Your task to perform on an android device: choose inbox layout in the gmail app Image 0: 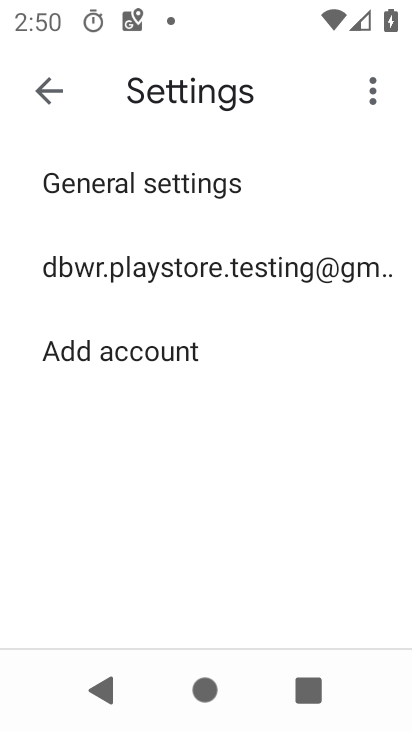
Step 0: press back button
Your task to perform on an android device: choose inbox layout in the gmail app Image 1: 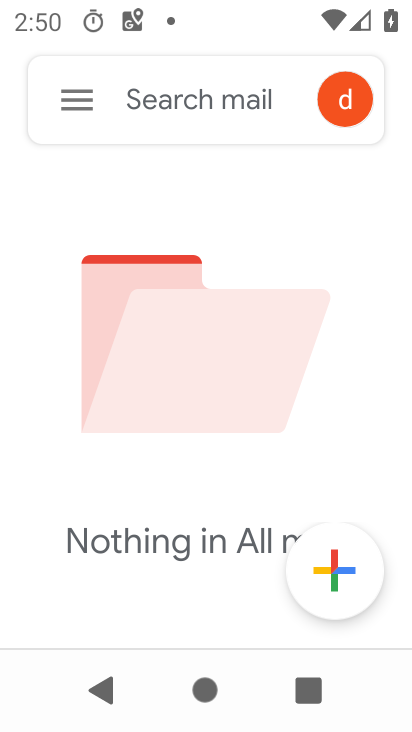
Step 1: press back button
Your task to perform on an android device: choose inbox layout in the gmail app Image 2: 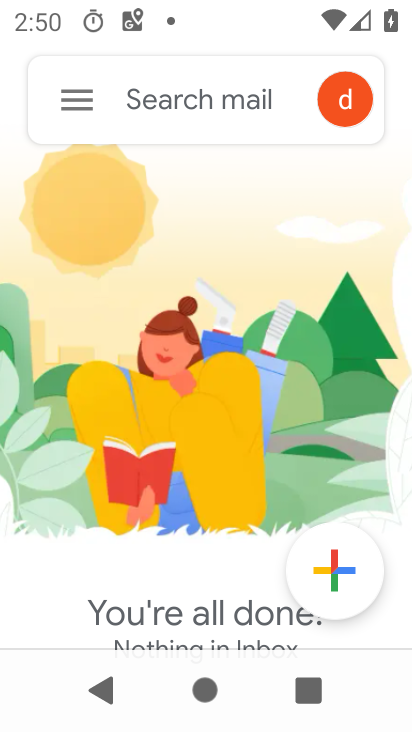
Step 2: press back button
Your task to perform on an android device: choose inbox layout in the gmail app Image 3: 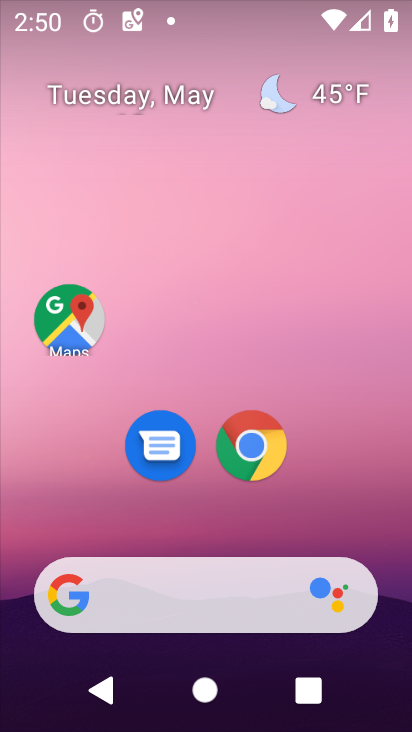
Step 3: drag from (227, 505) to (352, 11)
Your task to perform on an android device: choose inbox layout in the gmail app Image 4: 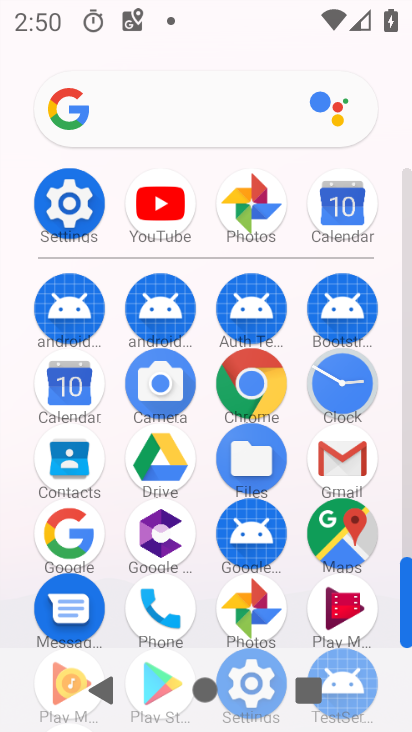
Step 4: click (346, 459)
Your task to perform on an android device: choose inbox layout in the gmail app Image 5: 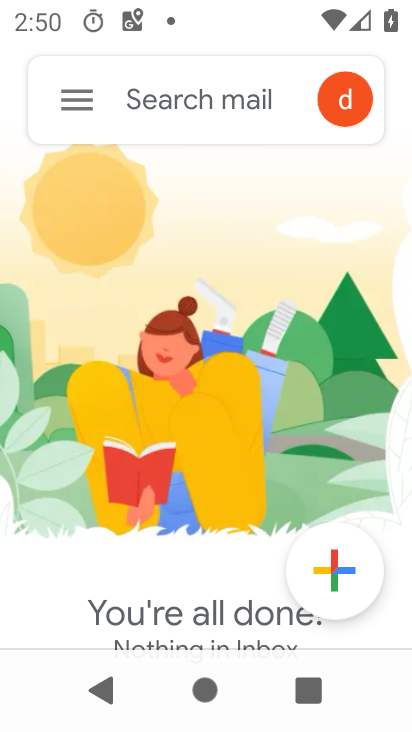
Step 5: click (73, 103)
Your task to perform on an android device: choose inbox layout in the gmail app Image 6: 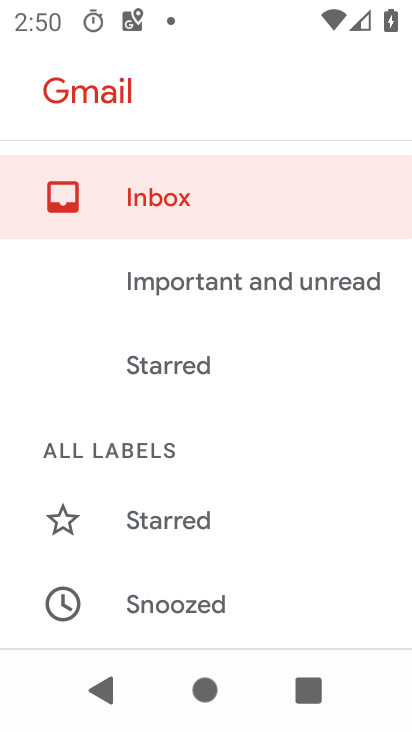
Step 6: drag from (318, 424) to (373, 40)
Your task to perform on an android device: choose inbox layout in the gmail app Image 7: 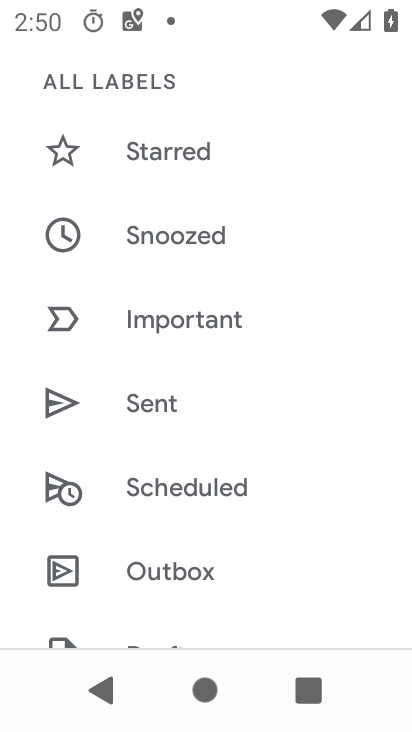
Step 7: drag from (210, 569) to (324, 92)
Your task to perform on an android device: choose inbox layout in the gmail app Image 8: 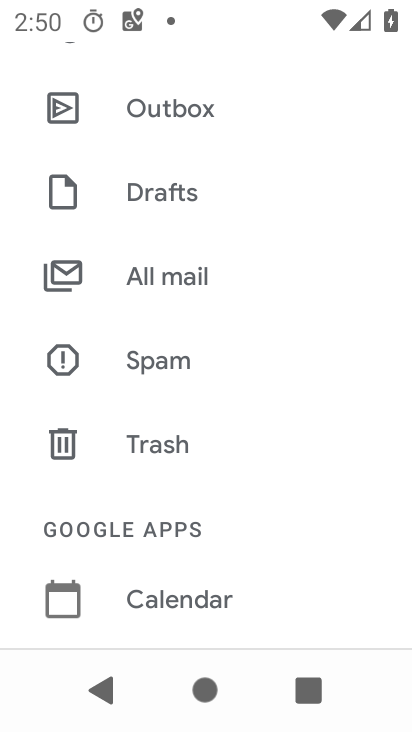
Step 8: drag from (209, 573) to (346, 60)
Your task to perform on an android device: choose inbox layout in the gmail app Image 9: 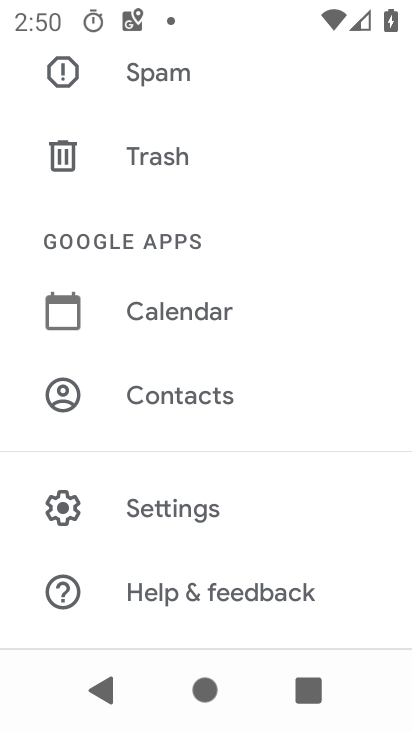
Step 9: click (173, 523)
Your task to perform on an android device: choose inbox layout in the gmail app Image 10: 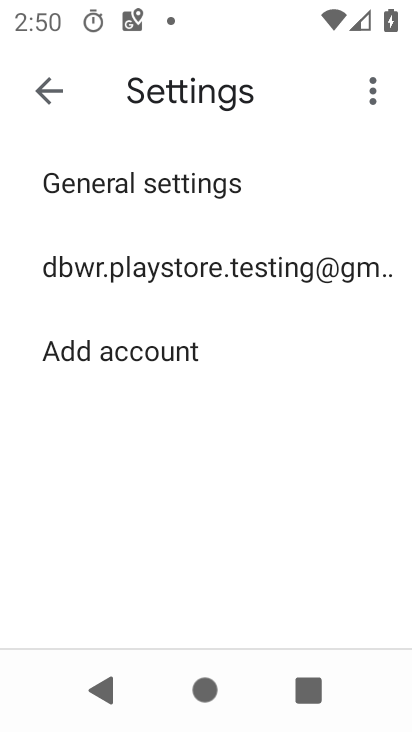
Step 10: click (186, 272)
Your task to perform on an android device: choose inbox layout in the gmail app Image 11: 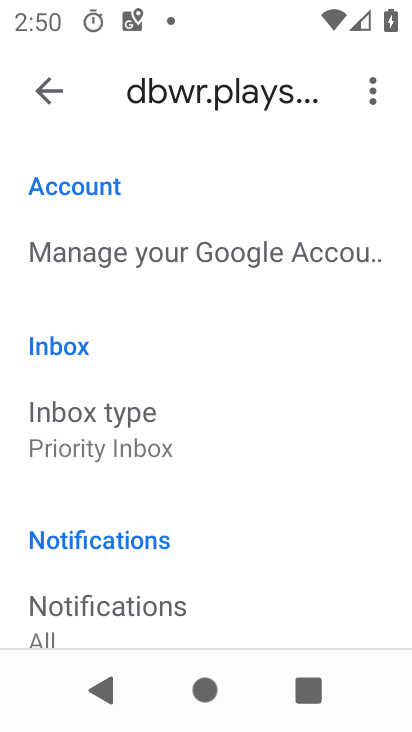
Step 11: click (162, 433)
Your task to perform on an android device: choose inbox layout in the gmail app Image 12: 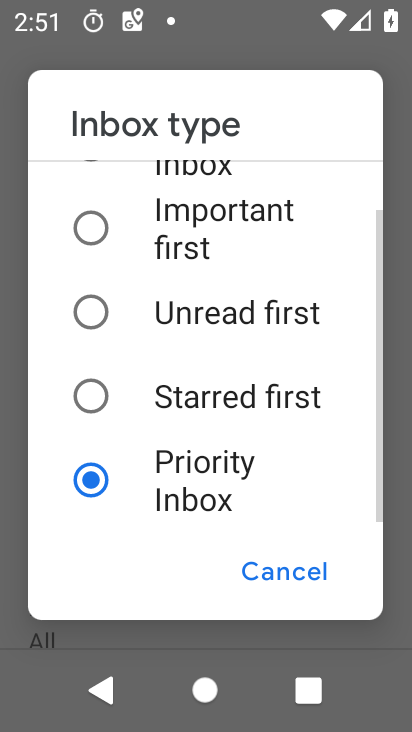
Step 12: drag from (221, 391) to (220, 507)
Your task to perform on an android device: choose inbox layout in the gmail app Image 13: 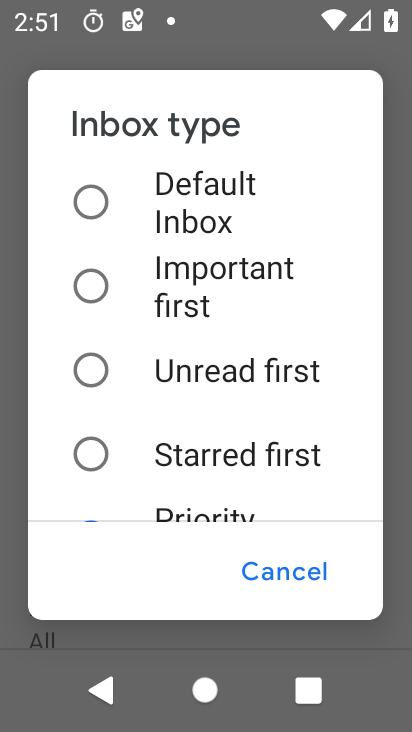
Step 13: click (88, 198)
Your task to perform on an android device: choose inbox layout in the gmail app Image 14: 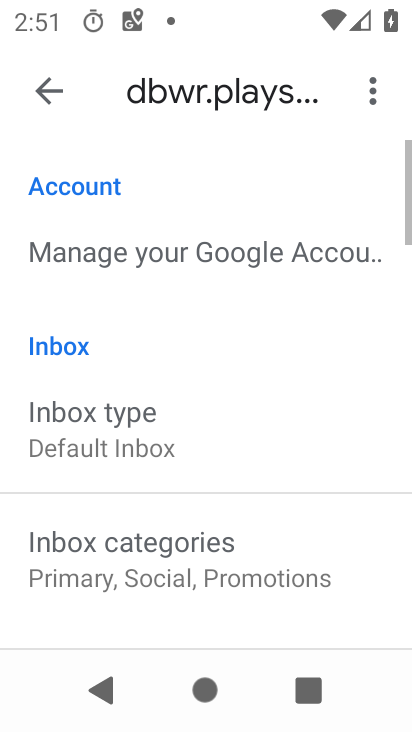
Step 14: task complete